Your task to perform on an android device: Set the phone to "Do not disturb". Image 0: 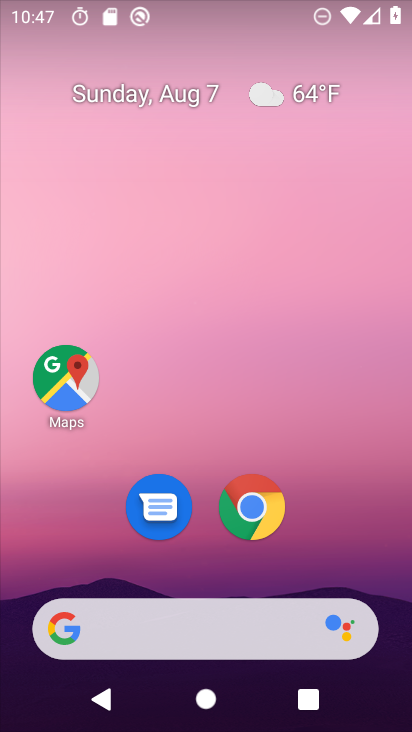
Step 0: drag from (211, 11) to (256, 556)
Your task to perform on an android device: Set the phone to "Do not disturb". Image 1: 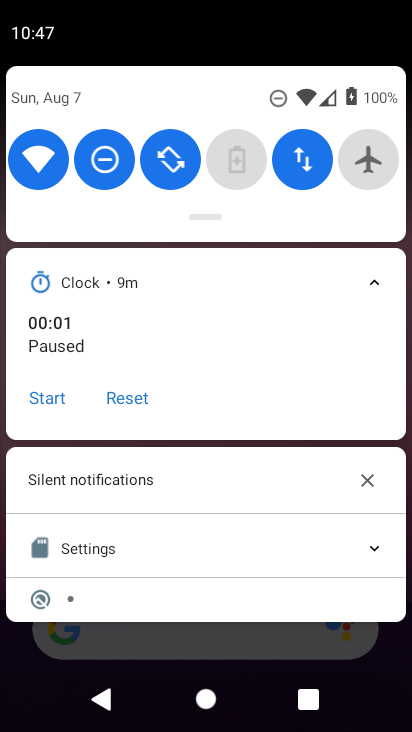
Step 1: task complete